Your task to perform on an android device: What's the weather? Image 0: 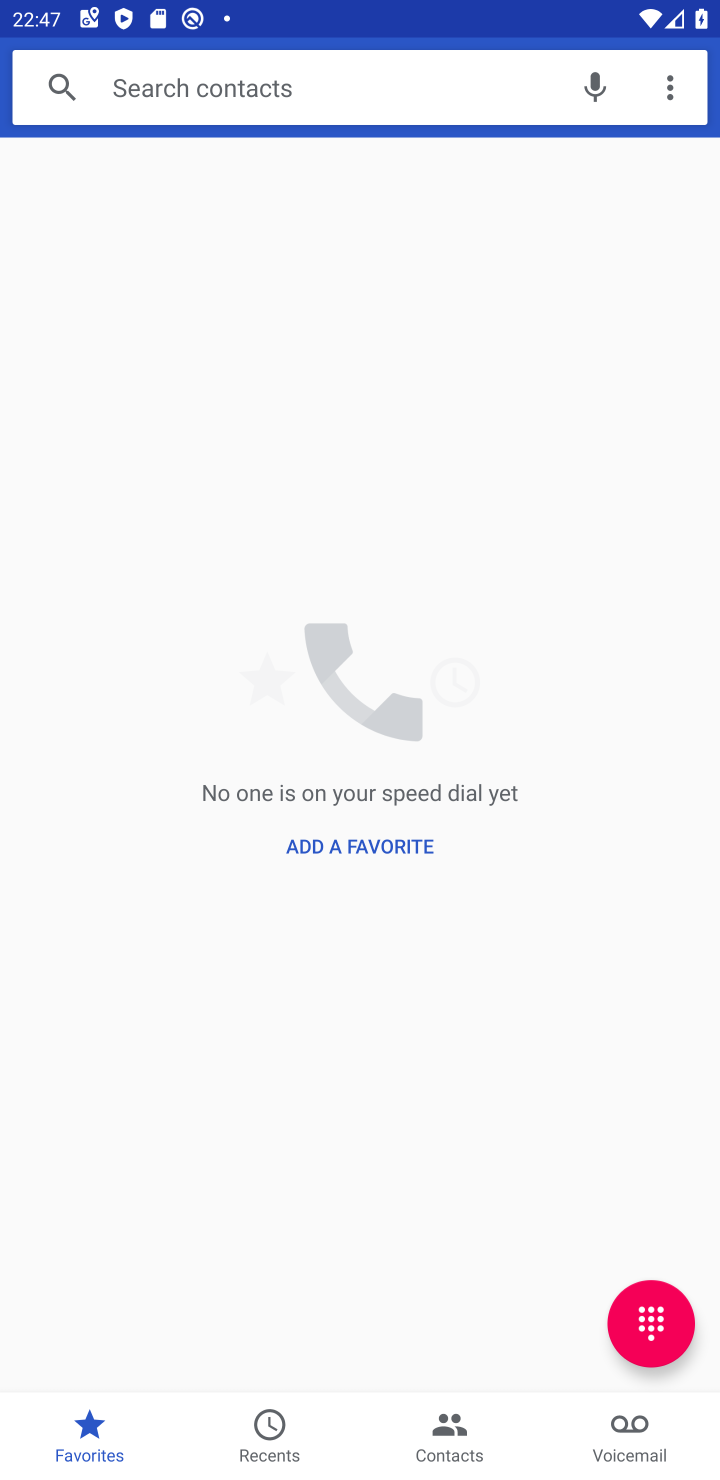
Step 0: press home button
Your task to perform on an android device: What's the weather? Image 1: 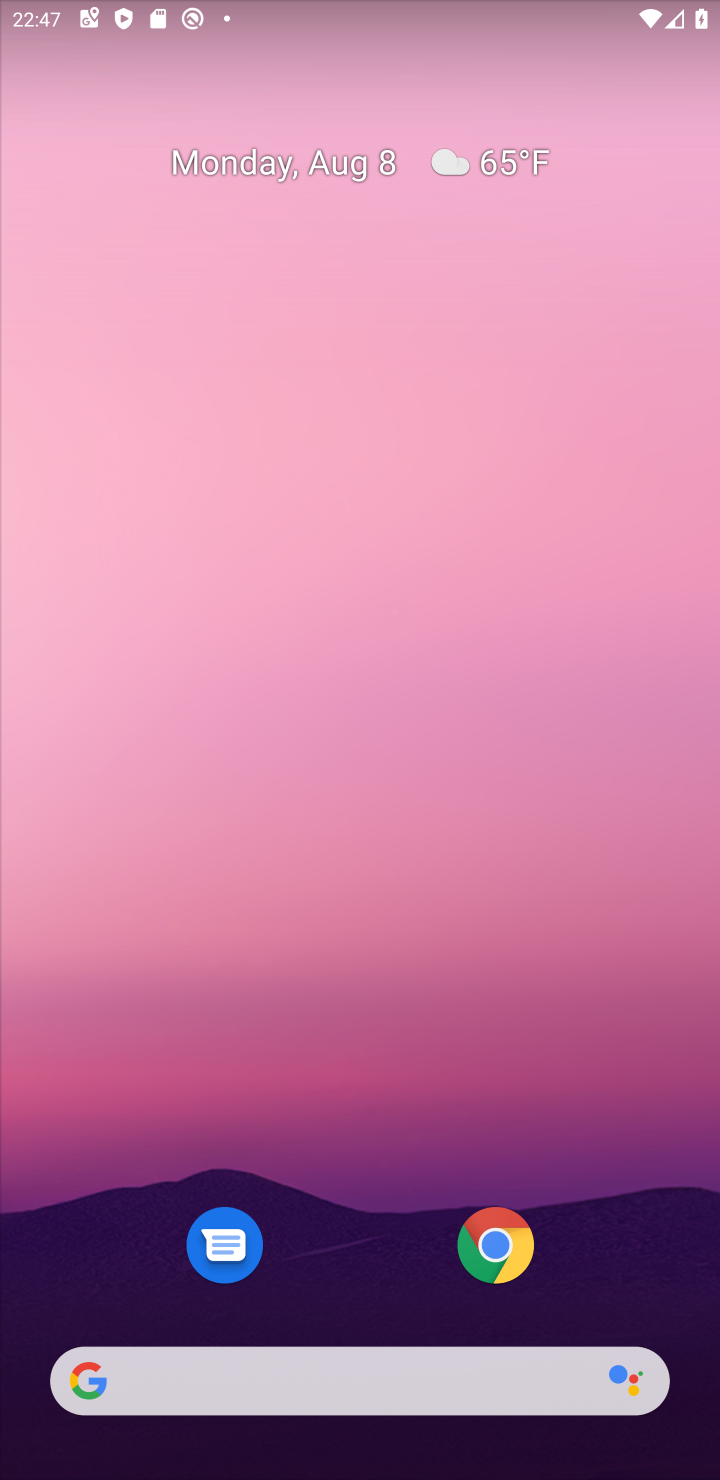
Step 1: click (324, 1363)
Your task to perform on an android device: What's the weather? Image 2: 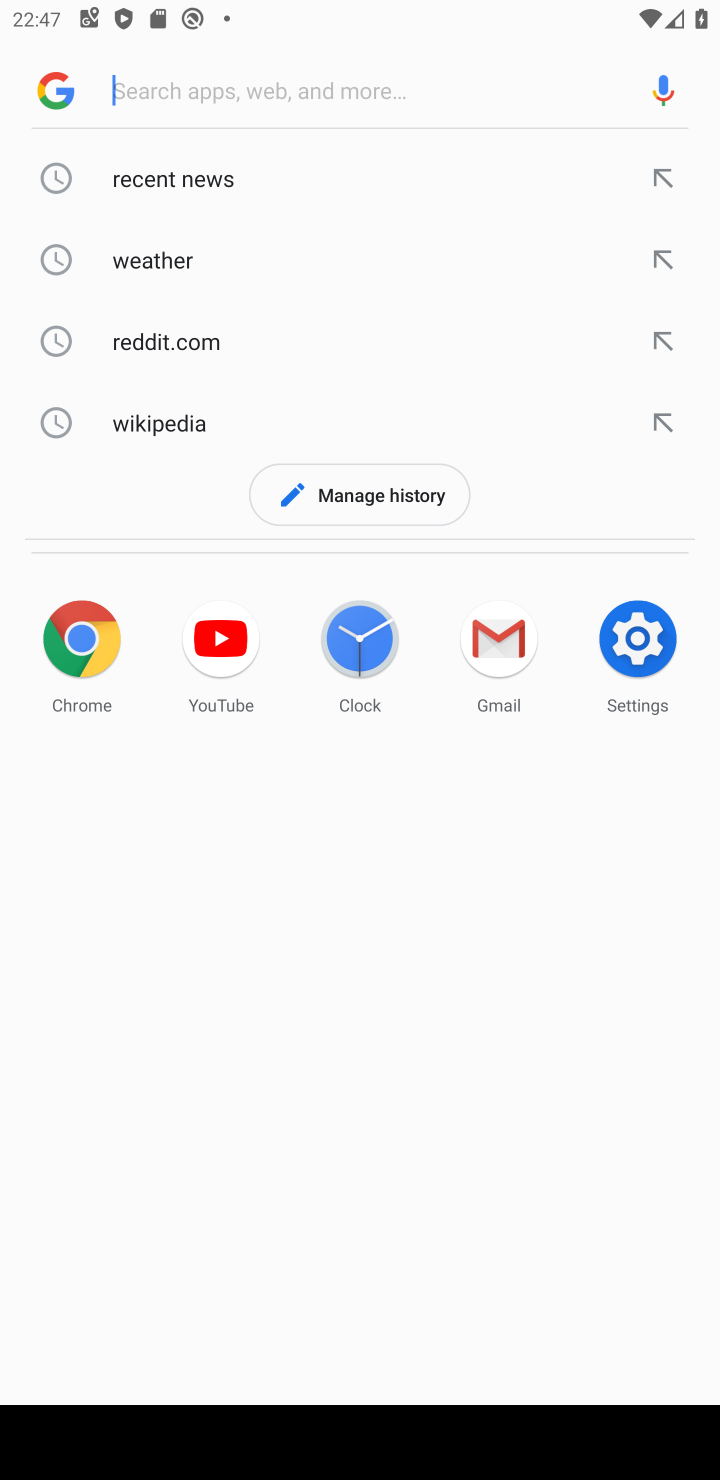
Step 2: click (161, 263)
Your task to perform on an android device: What's the weather? Image 3: 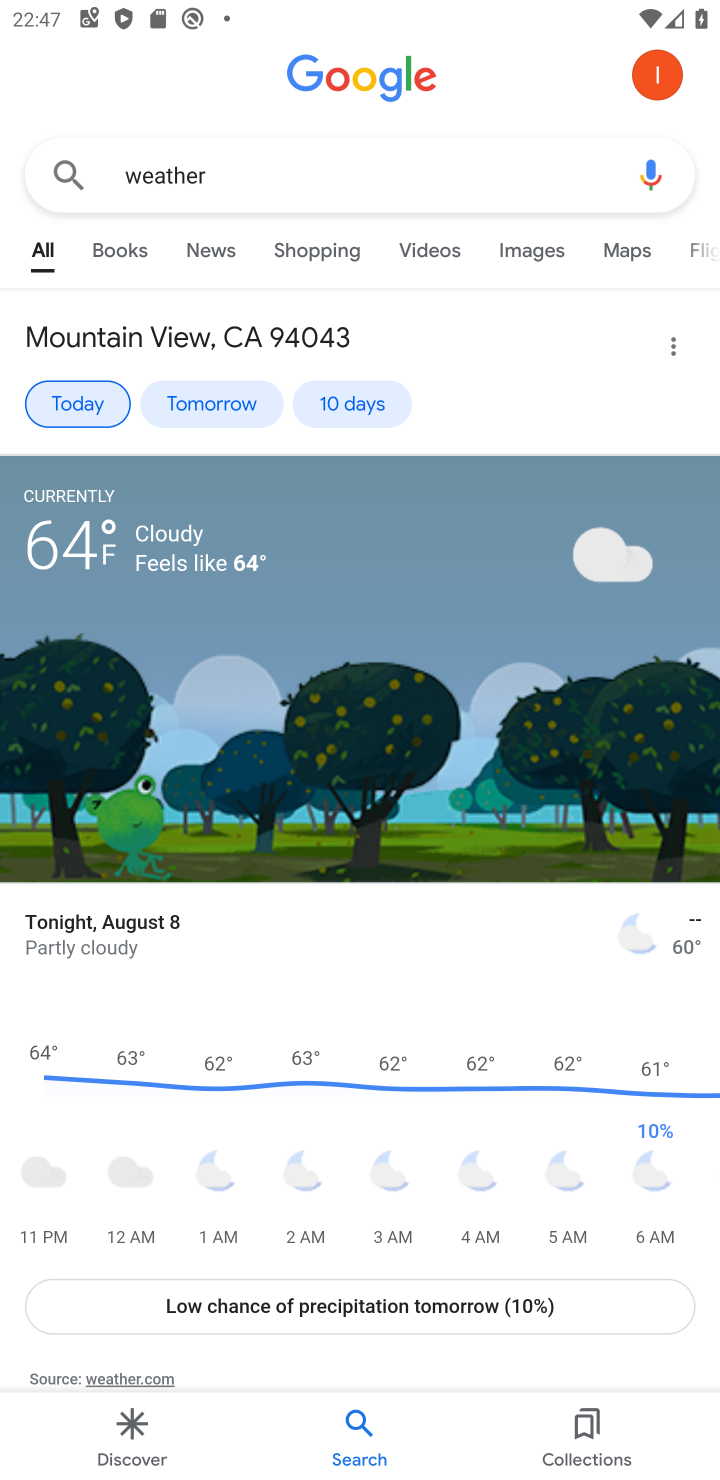
Step 3: task complete